Your task to perform on an android device: open device folders in google photos Image 0: 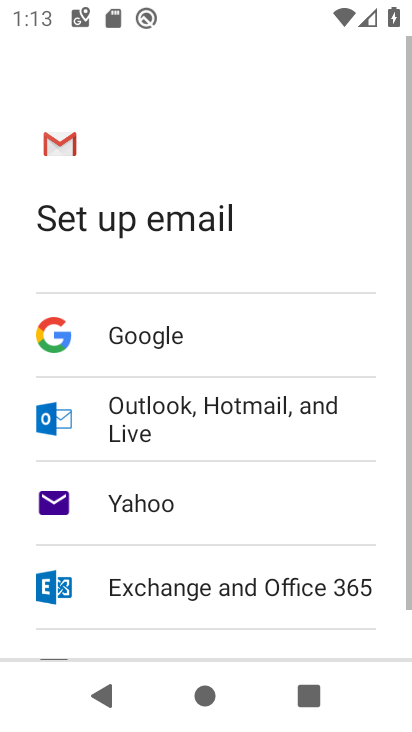
Step 0: press home button
Your task to perform on an android device: open device folders in google photos Image 1: 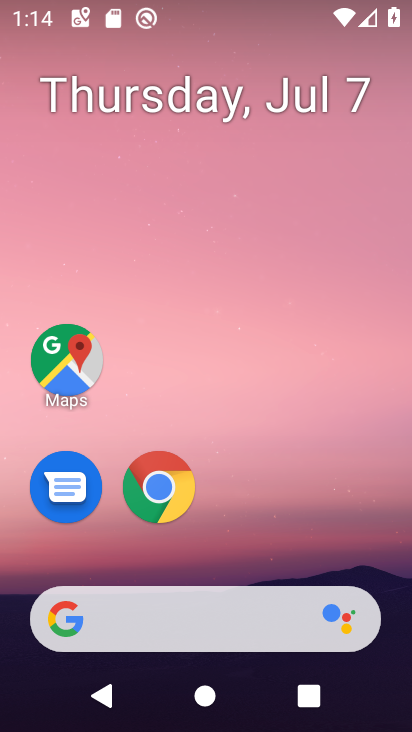
Step 1: drag from (356, 552) to (360, 93)
Your task to perform on an android device: open device folders in google photos Image 2: 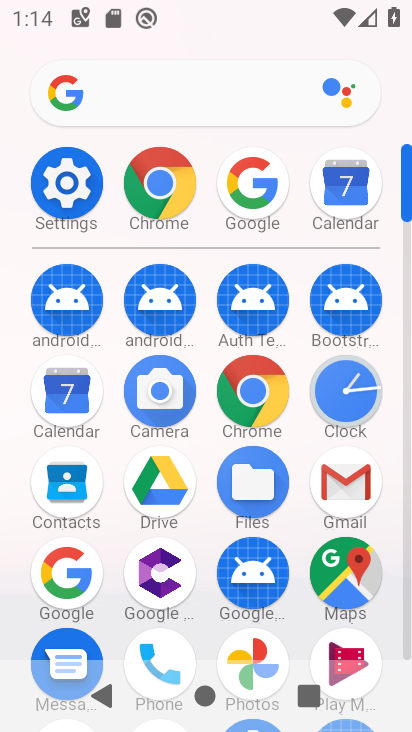
Step 2: drag from (303, 509) to (298, 272)
Your task to perform on an android device: open device folders in google photos Image 3: 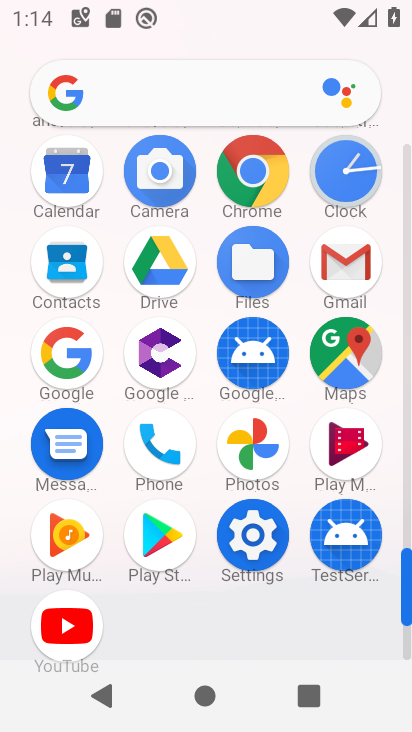
Step 3: click (262, 444)
Your task to perform on an android device: open device folders in google photos Image 4: 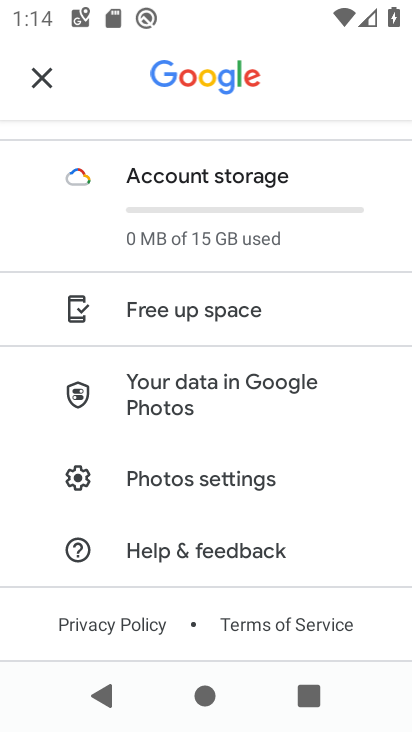
Step 4: press back button
Your task to perform on an android device: open device folders in google photos Image 5: 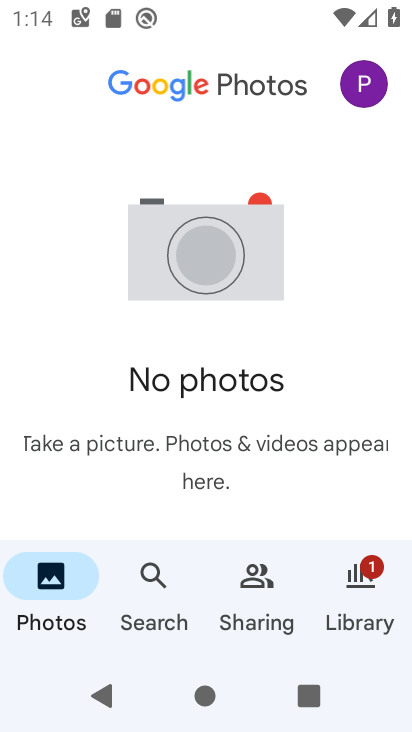
Step 5: click (364, 98)
Your task to perform on an android device: open device folders in google photos Image 6: 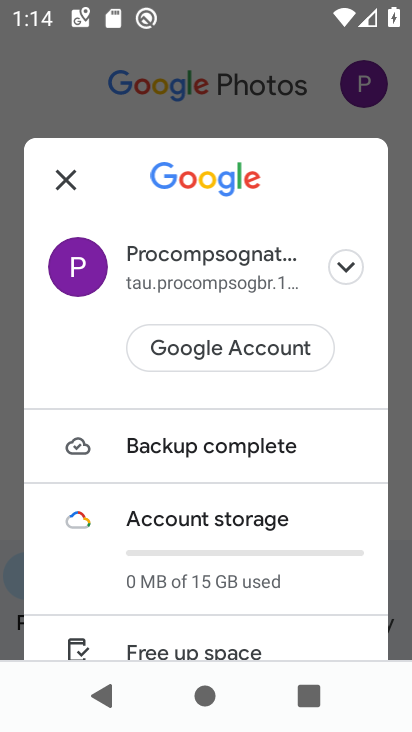
Step 6: task complete